Your task to perform on an android device: Open the stopwatch Image 0: 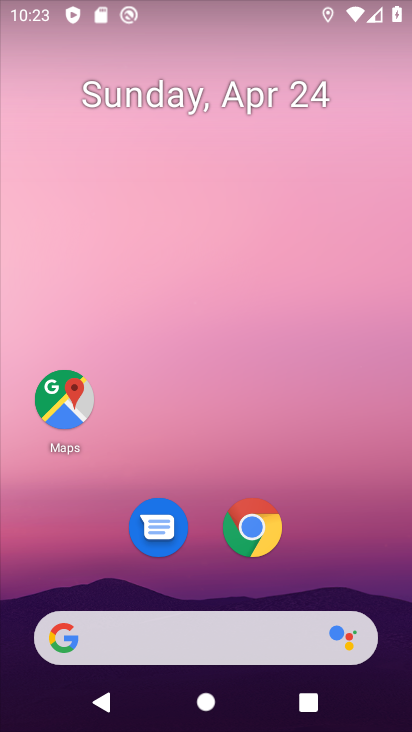
Step 0: drag from (319, 552) to (312, 54)
Your task to perform on an android device: Open the stopwatch Image 1: 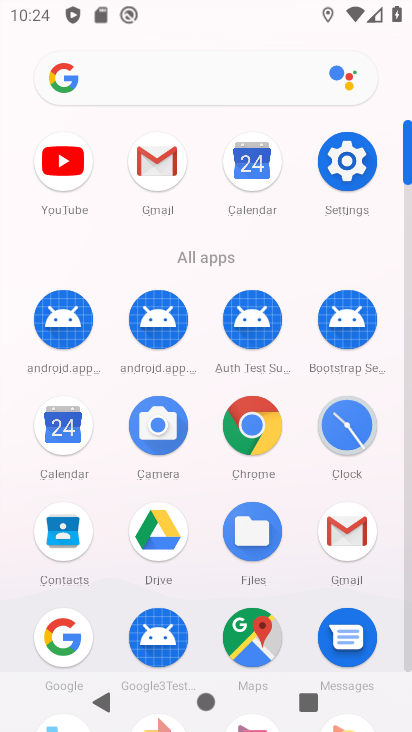
Step 1: click (344, 424)
Your task to perform on an android device: Open the stopwatch Image 2: 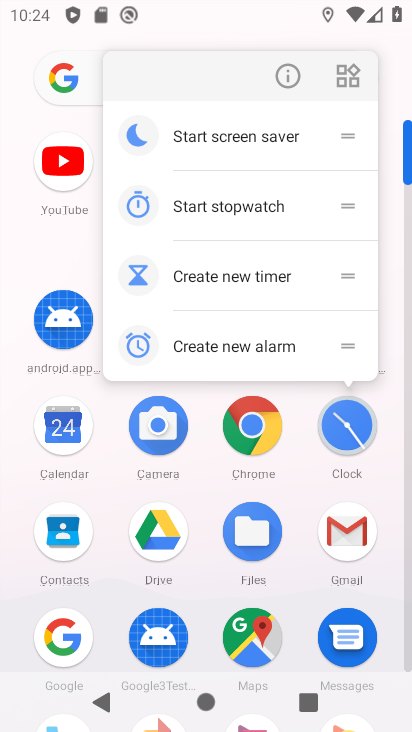
Step 2: click (345, 423)
Your task to perform on an android device: Open the stopwatch Image 3: 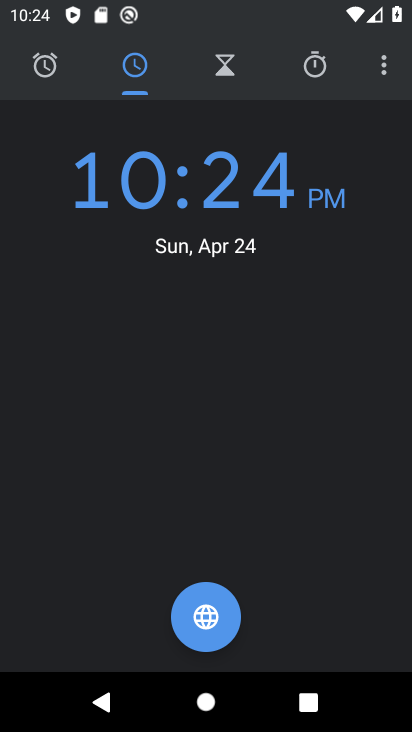
Step 3: click (291, 67)
Your task to perform on an android device: Open the stopwatch Image 4: 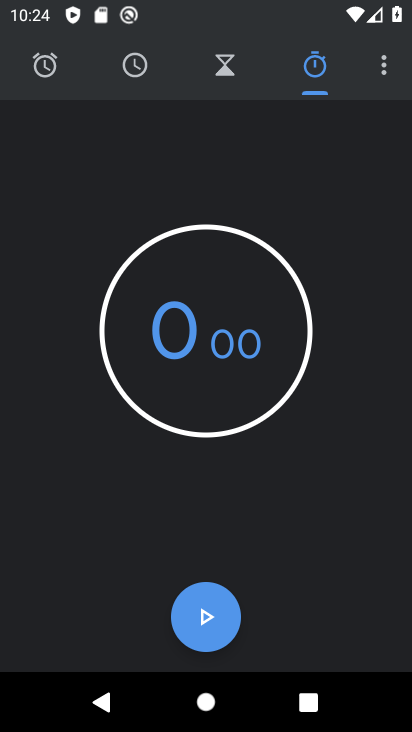
Step 4: click (210, 613)
Your task to perform on an android device: Open the stopwatch Image 5: 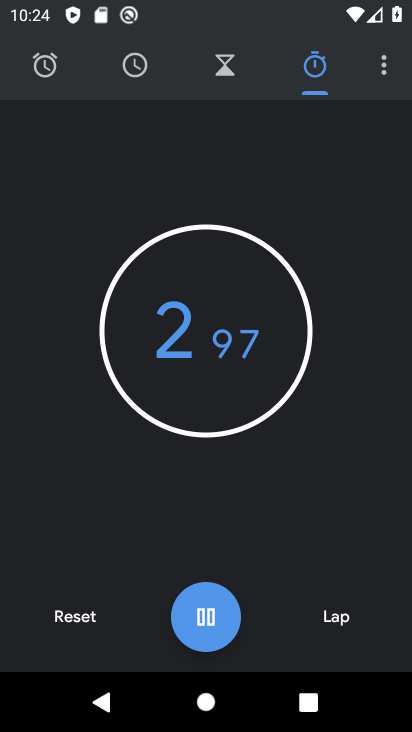
Step 5: task complete